Your task to perform on an android device: Is it going to rain this weekend? Image 0: 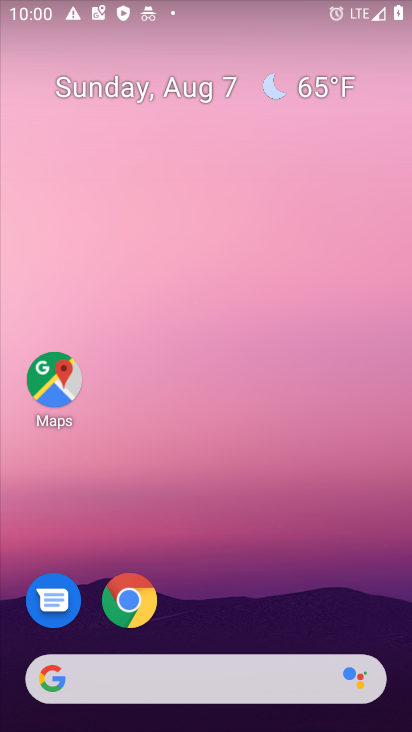
Step 0: drag from (176, 593) to (239, 97)
Your task to perform on an android device: Is it going to rain this weekend? Image 1: 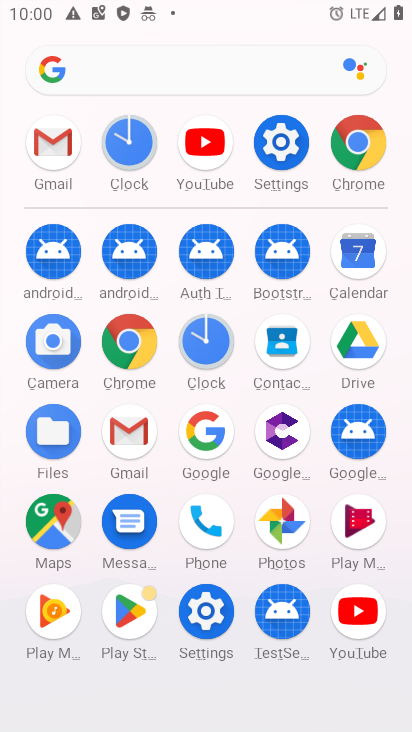
Step 1: click (210, 438)
Your task to perform on an android device: Is it going to rain this weekend? Image 2: 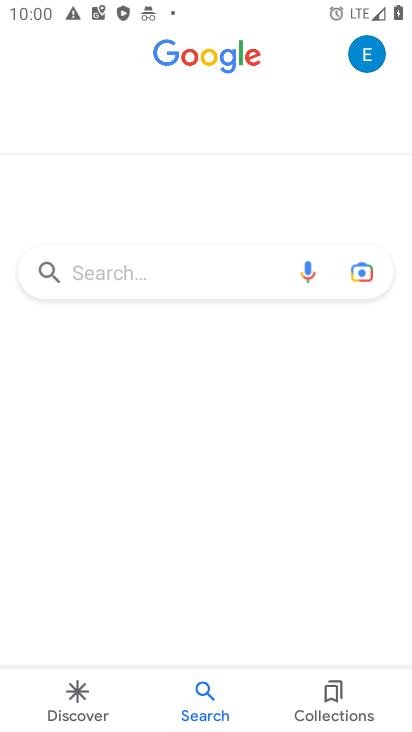
Step 2: click (152, 259)
Your task to perform on an android device: Is it going to rain this weekend? Image 3: 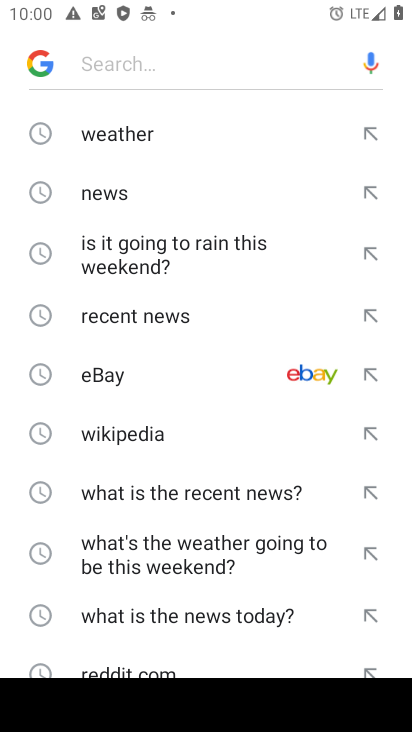
Step 3: click (119, 130)
Your task to perform on an android device: Is it going to rain this weekend? Image 4: 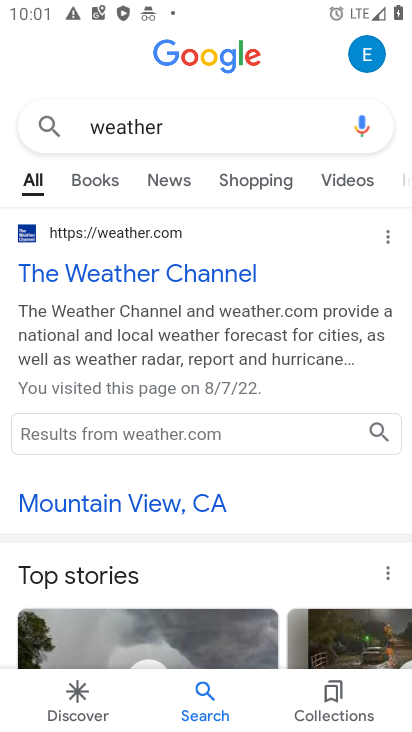
Step 4: click (83, 511)
Your task to perform on an android device: Is it going to rain this weekend? Image 5: 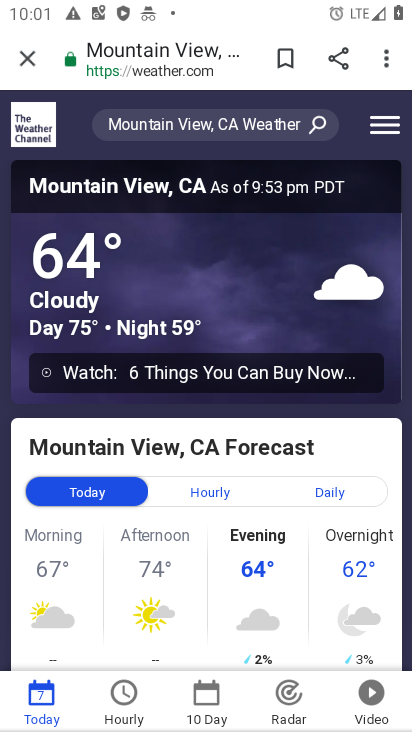
Step 5: click (217, 712)
Your task to perform on an android device: Is it going to rain this weekend? Image 6: 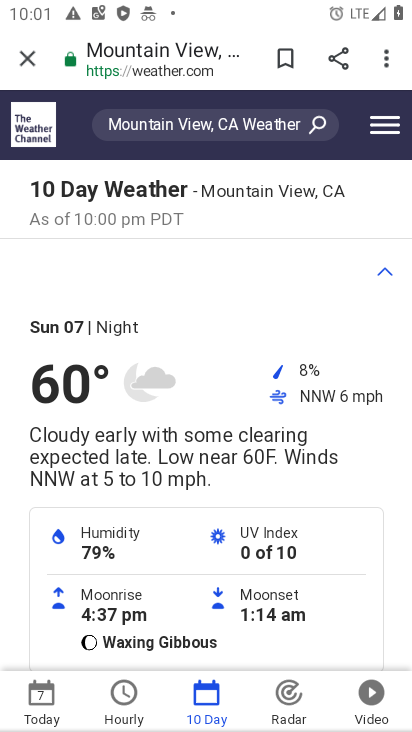
Step 6: drag from (287, 553) to (287, 424)
Your task to perform on an android device: Is it going to rain this weekend? Image 7: 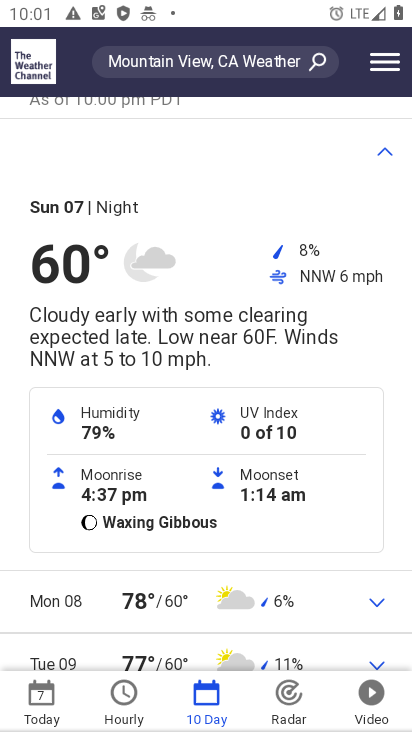
Step 7: click (284, 316)
Your task to perform on an android device: Is it going to rain this weekend? Image 8: 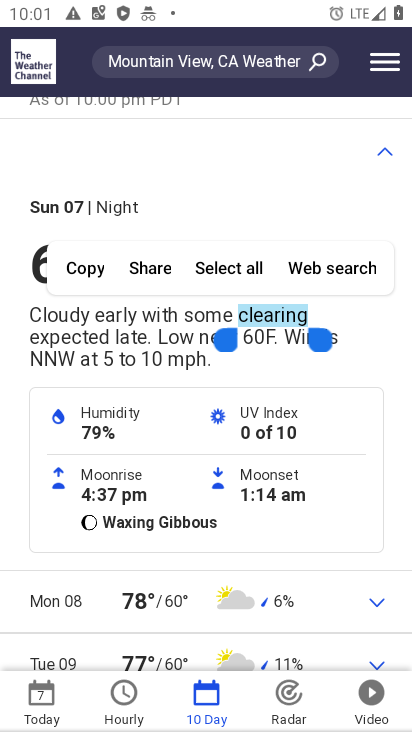
Step 8: task complete